Your task to perform on an android device: empty trash in the gmail app Image 0: 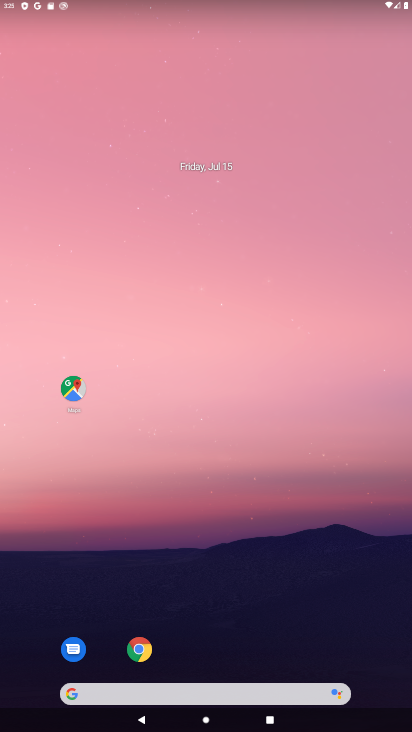
Step 0: drag from (235, 629) to (235, 74)
Your task to perform on an android device: empty trash in the gmail app Image 1: 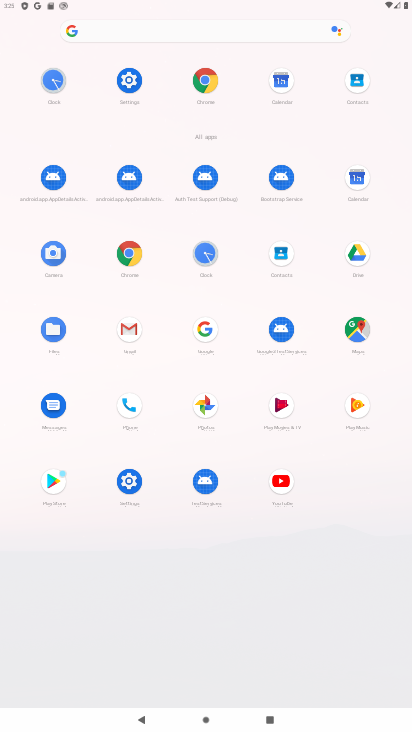
Step 1: click (137, 324)
Your task to perform on an android device: empty trash in the gmail app Image 2: 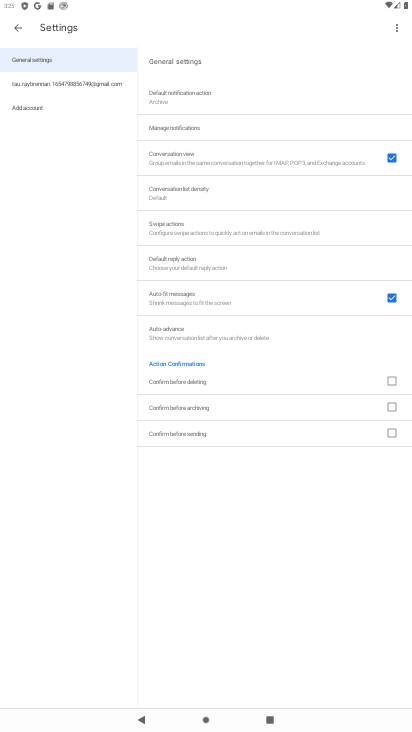
Step 2: press home button
Your task to perform on an android device: empty trash in the gmail app Image 3: 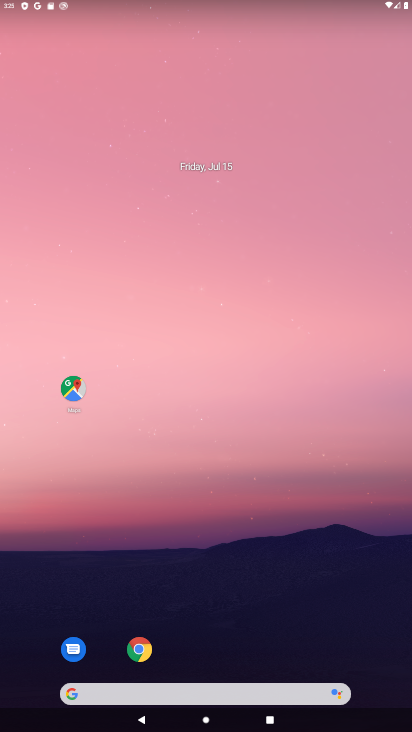
Step 3: drag from (207, 647) to (210, 214)
Your task to perform on an android device: empty trash in the gmail app Image 4: 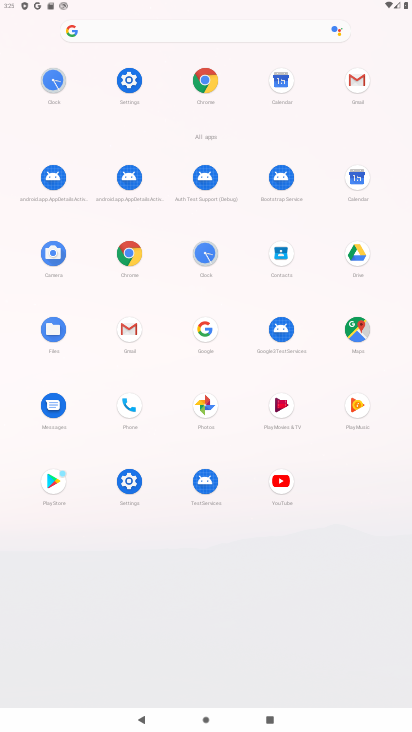
Step 4: click (352, 87)
Your task to perform on an android device: empty trash in the gmail app Image 5: 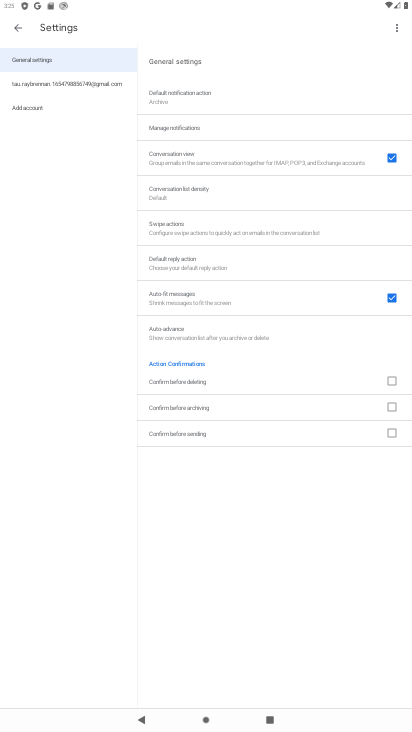
Step 5: click (16, 32)
Your task to perform on an android device: empty trash in the gmail app Image 6: 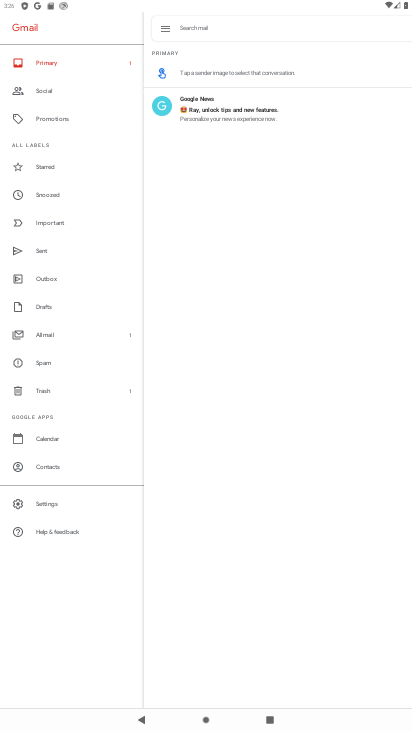
Step 6: click (34, 387)
Your task to perform on an android device: empty trash in the gmail app Image 7: 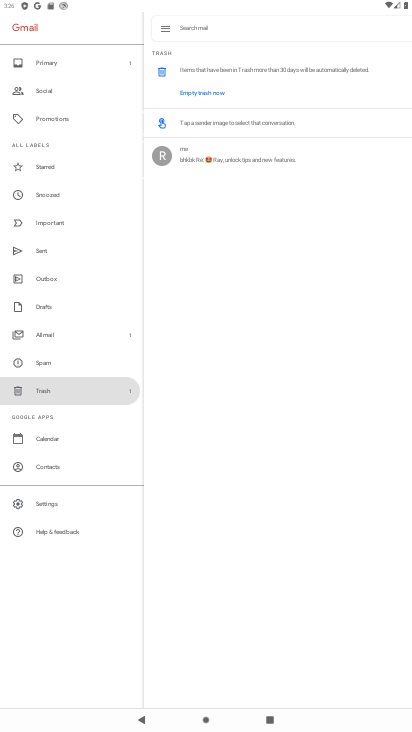
Step 7: click (210, 92)
Your task to perform on an android device: empty trash in the gmail app Image 8: 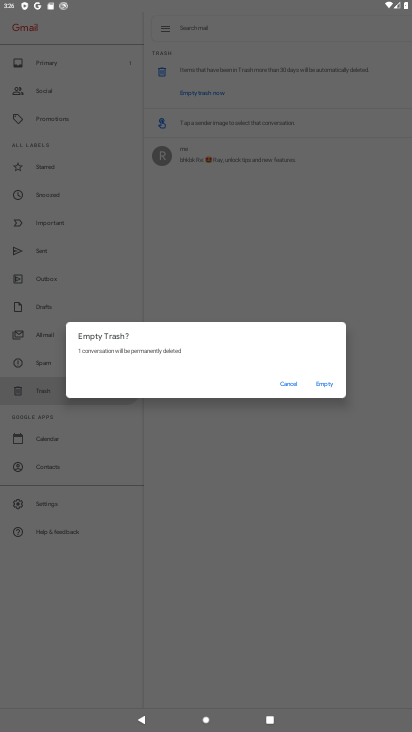
Step 8: click (315, 383)
Your task to perform on an android device: empty trash in the gmail app Image 9: 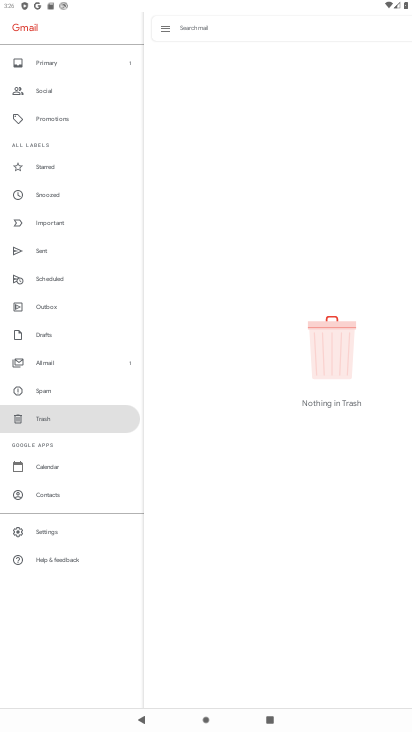
Step 9: task complete